Your task to perform on an android device: Set an alarm for 8pm Image 0: 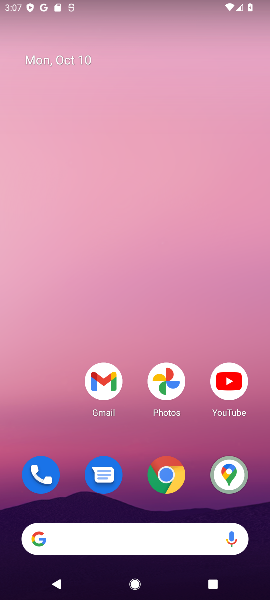
Step 0: drag from (129, 473) to (167, 170)
Your task to perform on an android device: Set an alarm for 8pm Image 1: 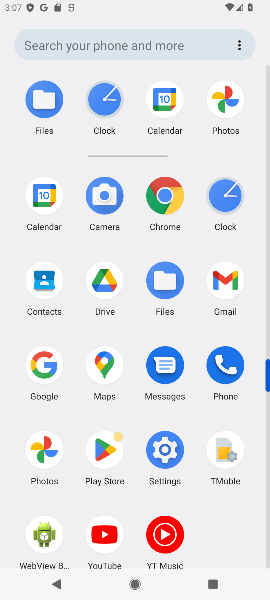
Step 1: click (222, 215)
Your task to perform on an android device: Set an alarm for 8pm Image 2: 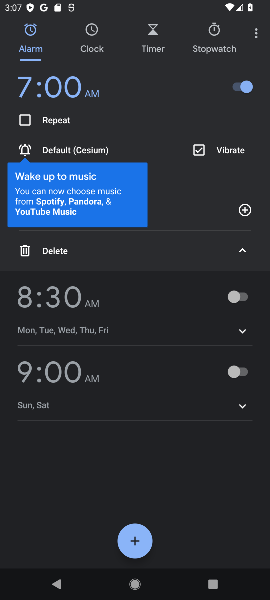
Step 2: click (130, 540)
Your task to perform on an android device: Set an alarm for 8pm Image 3: 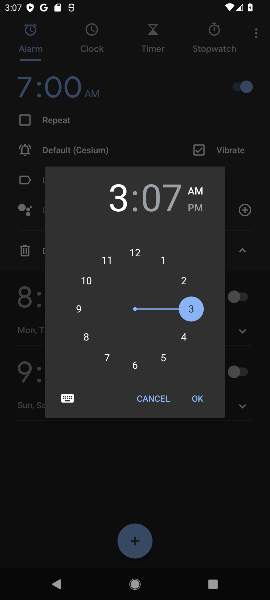
Step 3: click (87, 339)
Your task to perform on an android device: Set an alarm for 8pm Image 4: 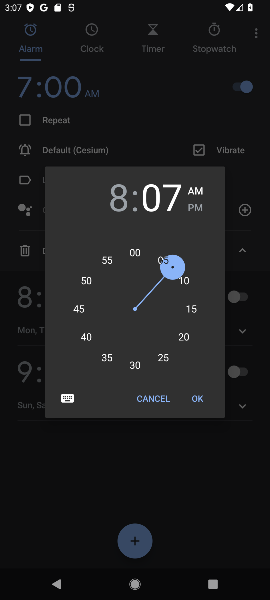
Step 4: click (131, 253)
Your task to perform on an android device: Set an alarm for 8pm Image 5: 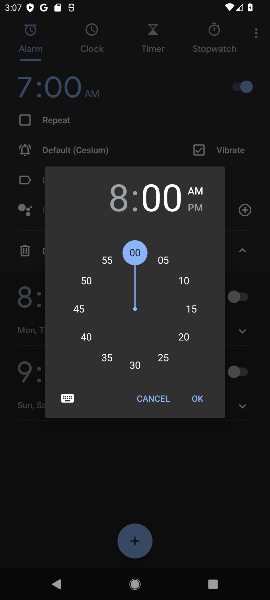
Step 5: click (200, 210)
Your task to perform on an android device: Set an alarm for 8pm Image 6: 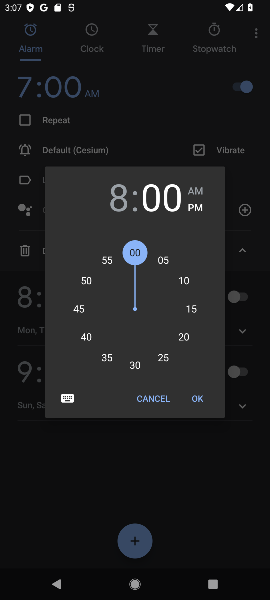
Step 6: click (194, 405)
Your task to perform on an android device: Set an alarm for 8pm Image 7: 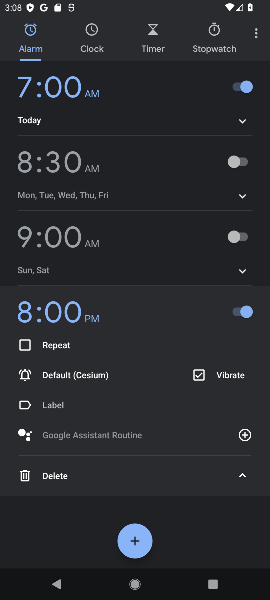
Step 7: task complete